Your task to perform on an android device: search for starred emails in the gmail app Image 0: 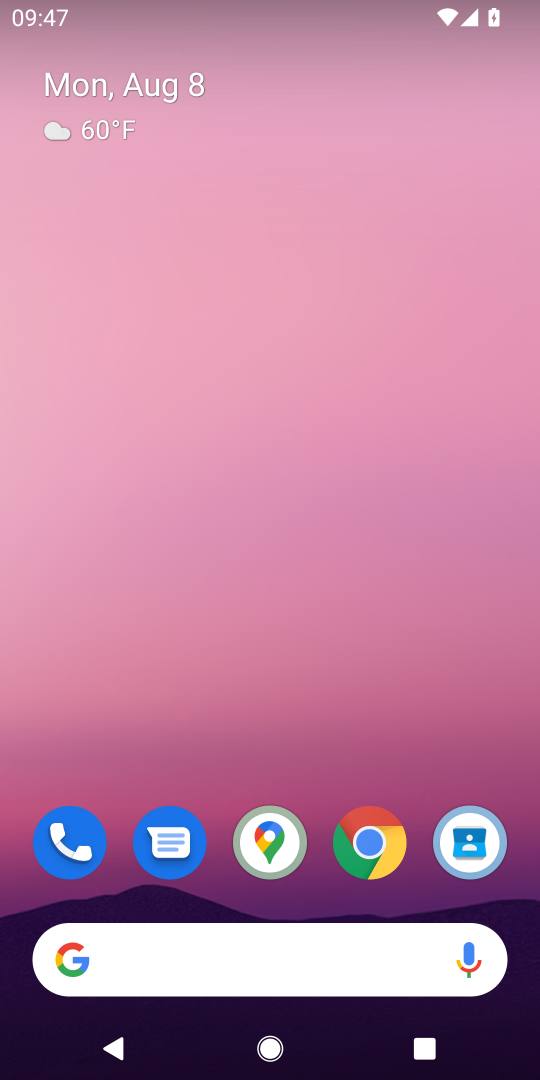
Step 0: drag from (265, 751) to (86, 0)
Your task to perform on an android device: search for starred emails in the gmail app Image 1: 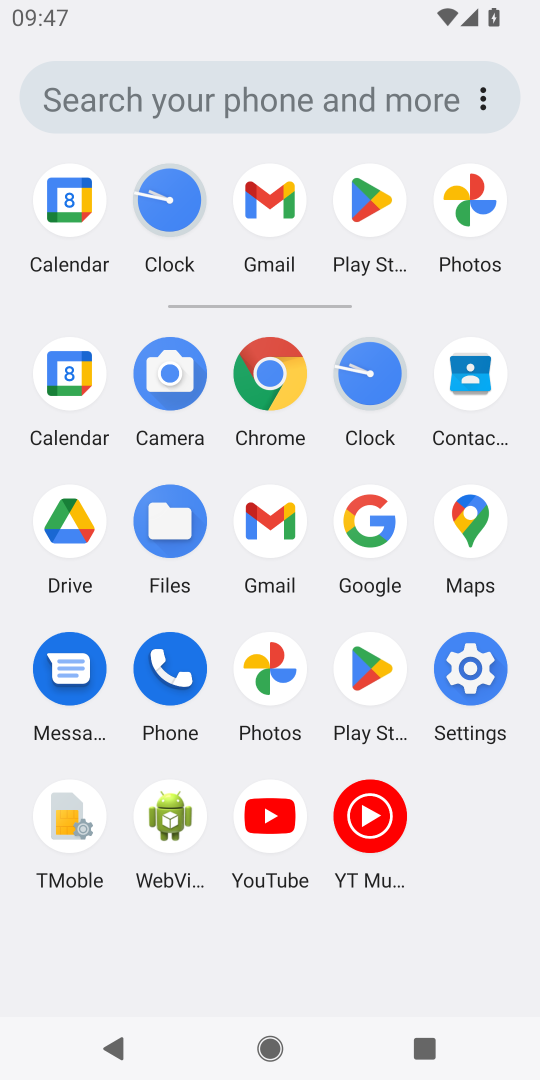
Step 1: click (259, 531)
Your task to perform on an android device: search for starred emails in the gmail app Image 2: 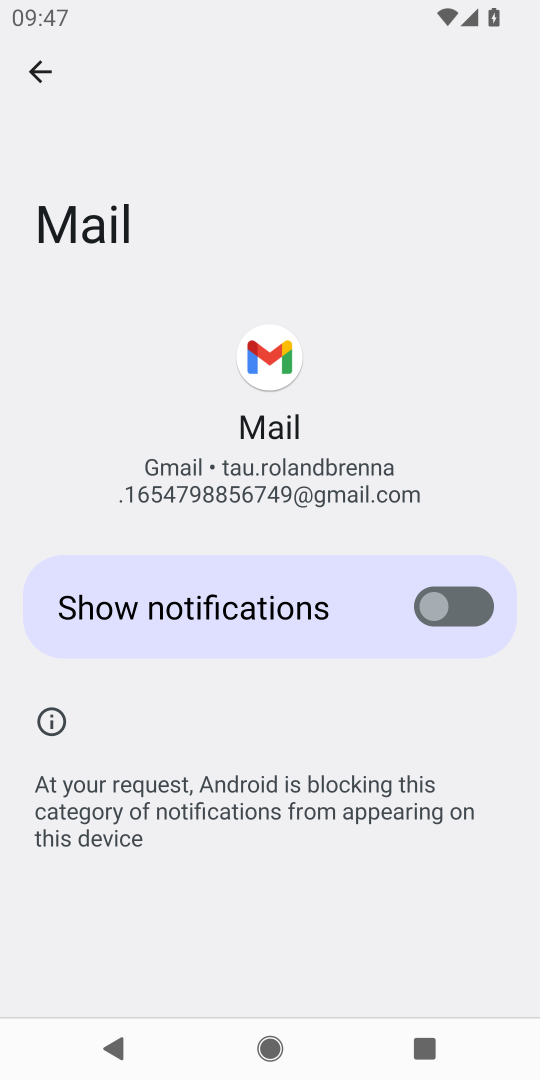
Step 2: click (46, 79)
Your task to perform on an android device: search for starred emails in the gmail app Image 3: 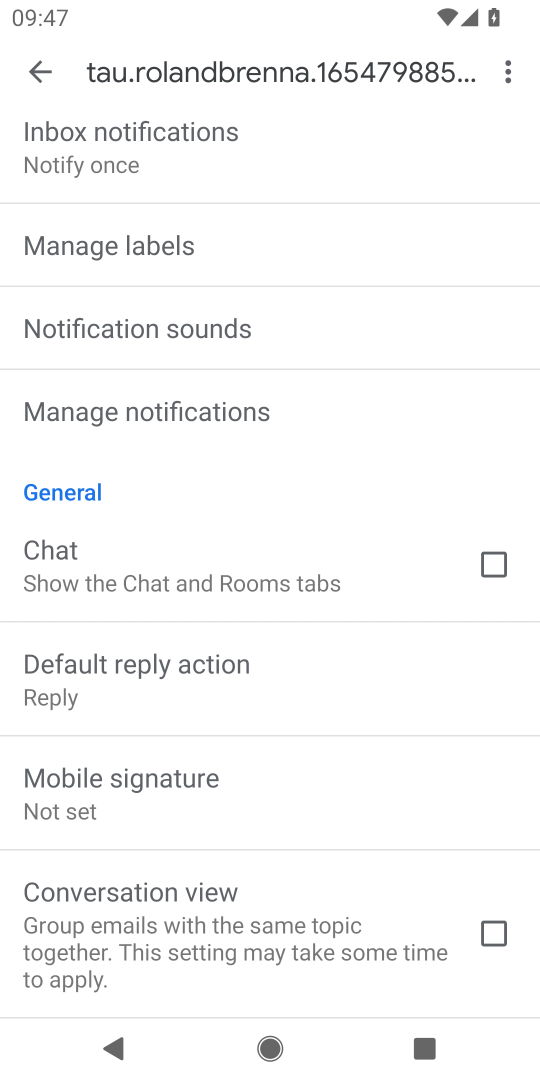
Step 3: click (46, 79)
Your task to perform on an android device: search for starred emails in the gmail app Image 4: 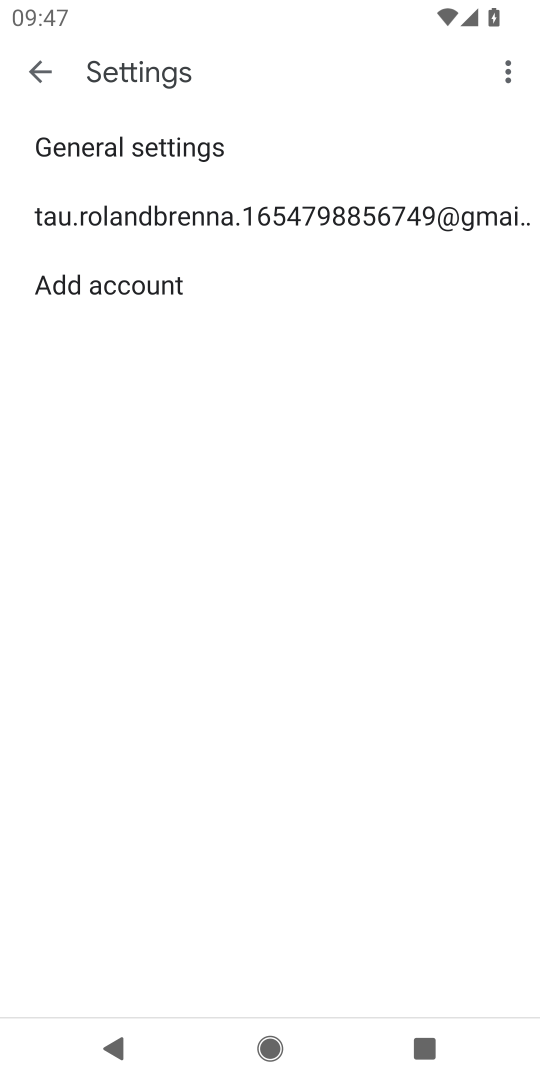
Step 4: click (46, 79)
Your task to perform on an android device: search for starred emails in the gmail app Image 5: 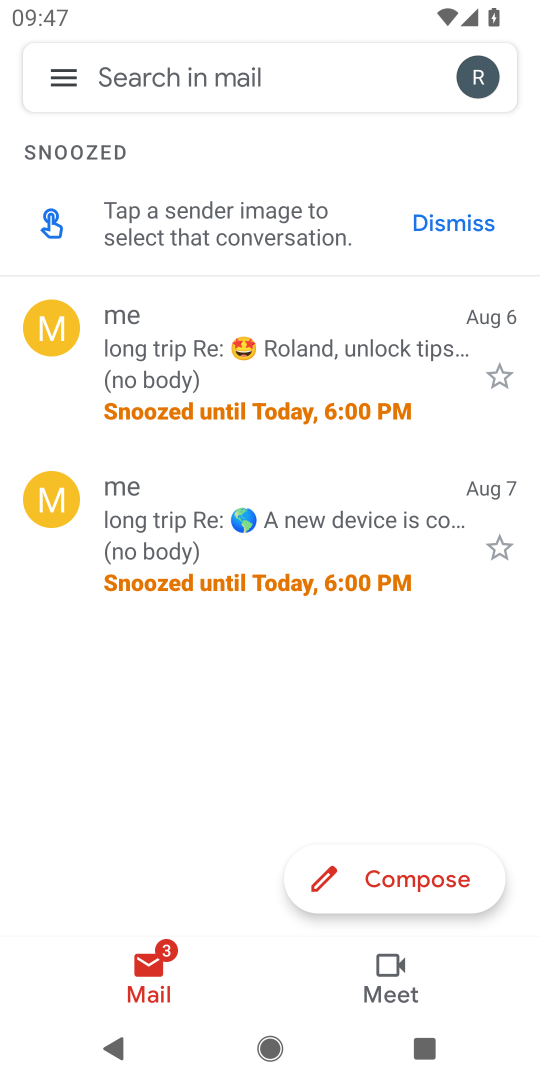
Step 5: click (69, 79)
Your task to perform on an android device: search for starred emails in the gmail app Image 6: 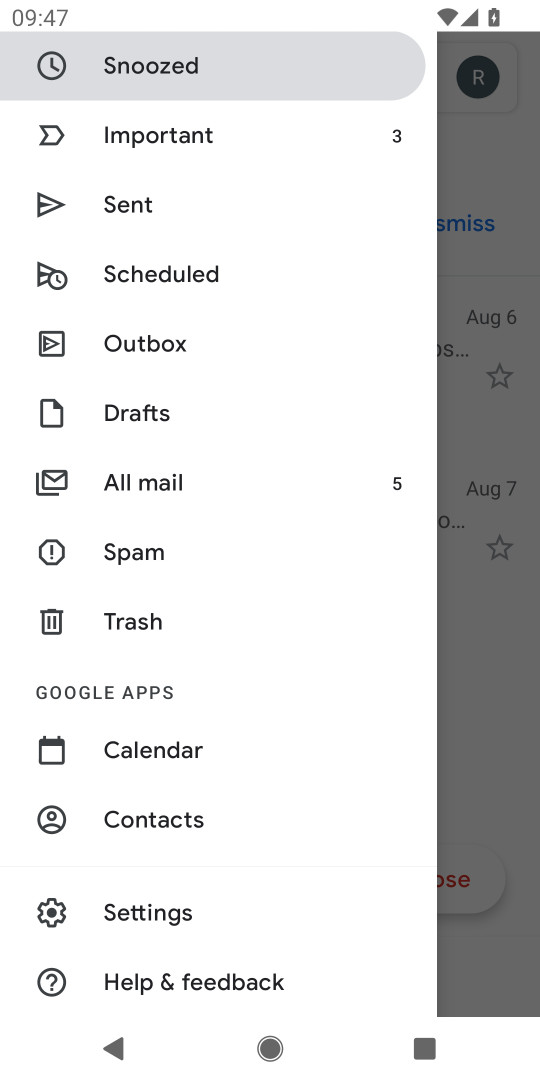
Step 6: drag from (139, 154) to (167, 539)
Your task to perform on an android device: search for starred emails in the gmail app Image 7: 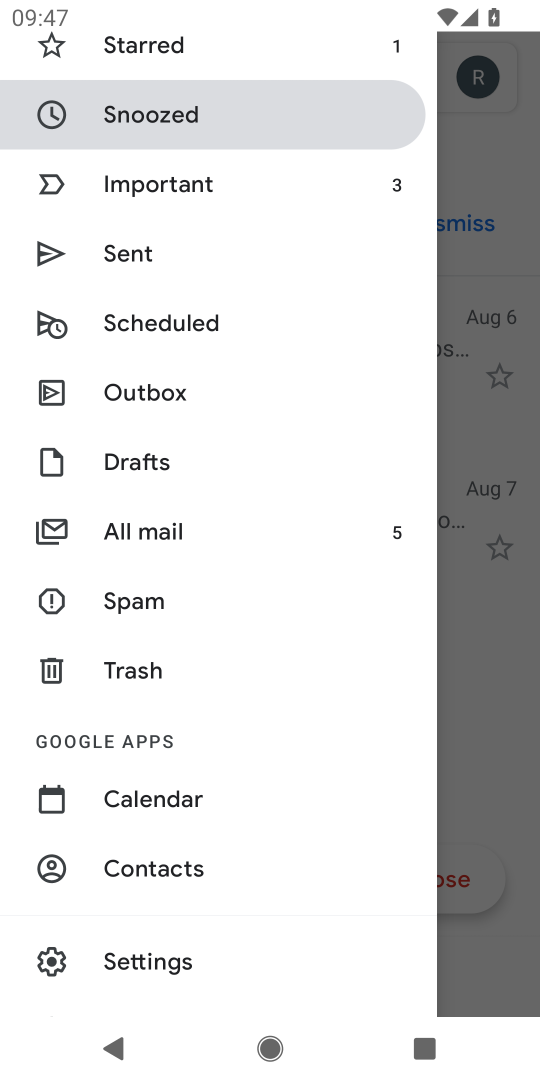
Step 7: click (148, 63)
Your task to perform on an android device: search for starred emails in the gmail app Image 8: 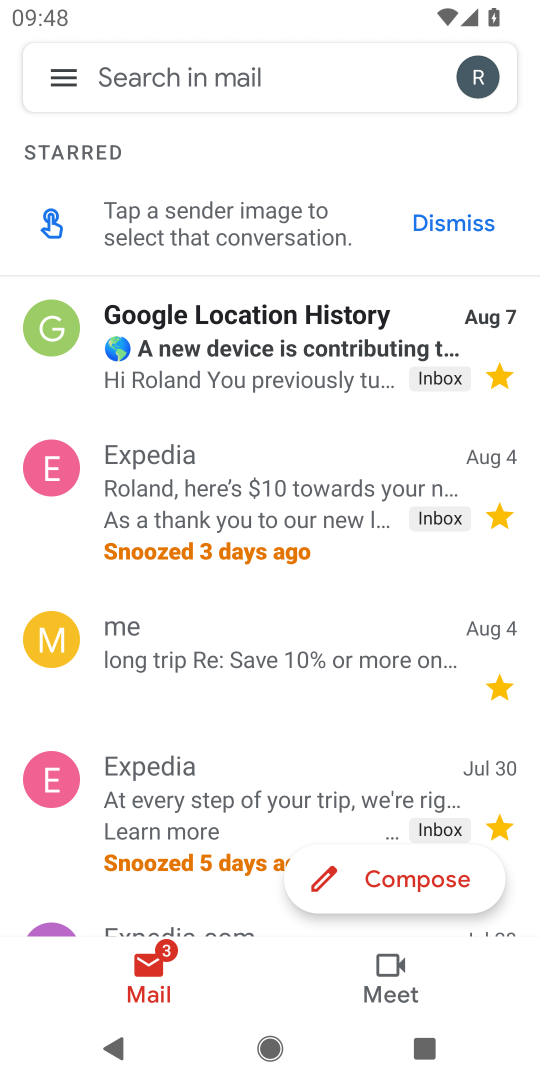
Step 8: task complete